Your task to perform on an android device: create a new album in the google photos Image 0: 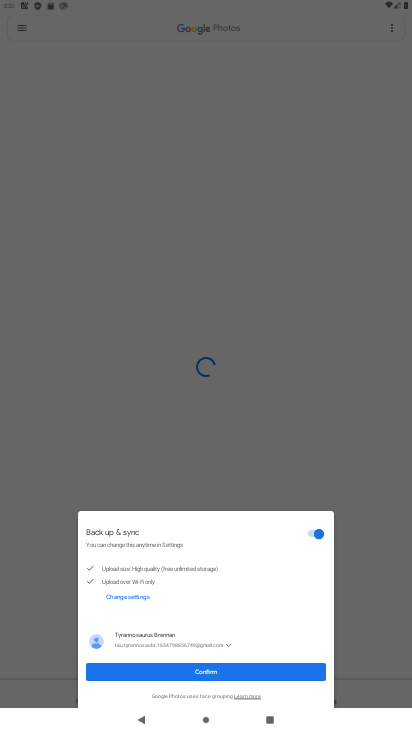
Step 0: press home button
Your task to perform on an android device: create a new album in the google photos Image 1: 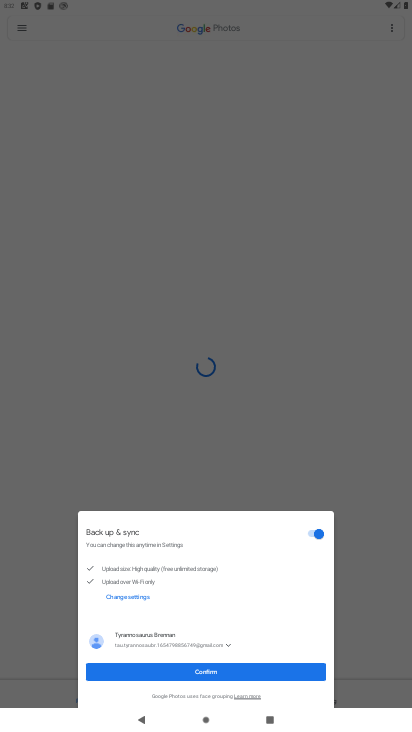
Step 1: press home button
Your task to perform on an android device: create a new album in the google photos Image 2: 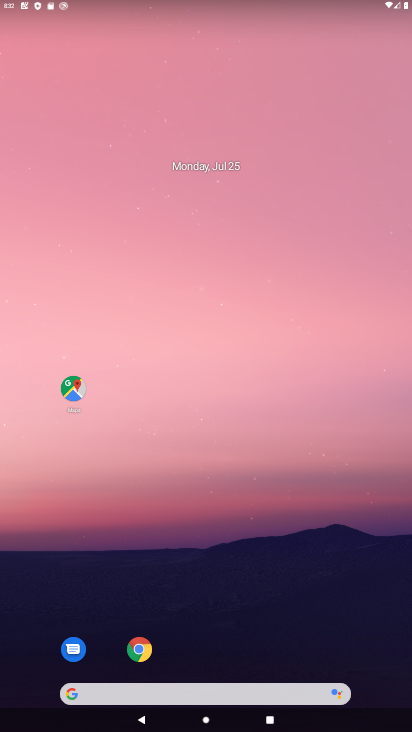
Step 2: press home button
Your task to perform on an android device: create a new album in the google photos Image 3: 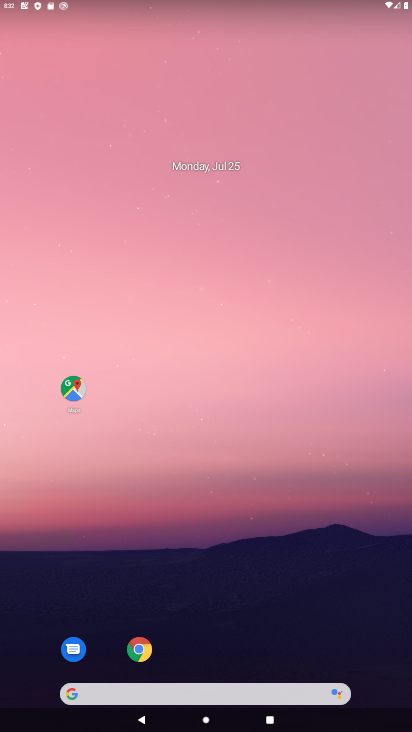
Step 3: drag from (208, 667) to (182, 124)
Your task to perform on an android device: create a new album in the google photos Image 4: 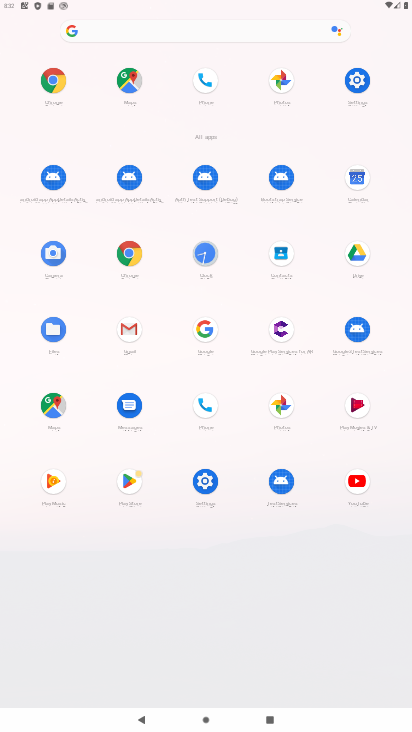
Step 4: click (265, 409)
Your task to perform on an android device: create a new album in the google photos Image 5: 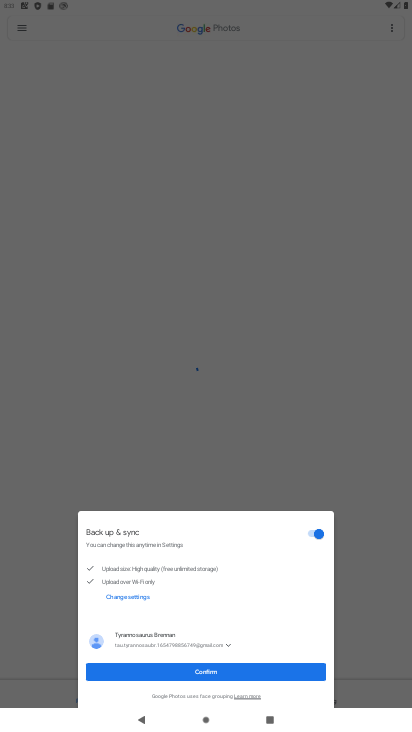
Step 5: click (297, 671)
Your task to perform on an android device: create a new album in the google photos Image 6: 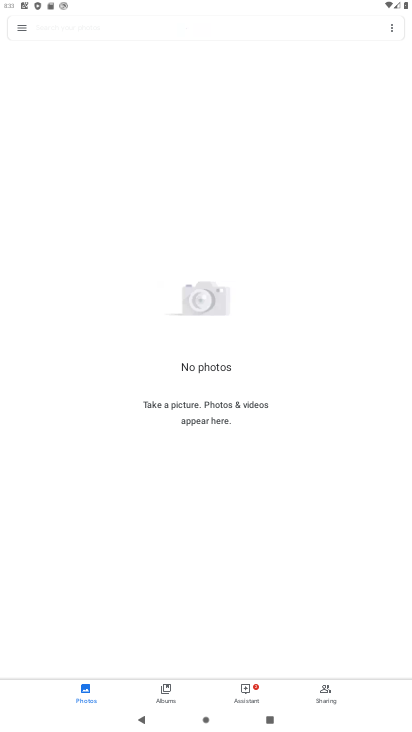
Step 6: click (168, 691)
Your task to perform on an android device: create a new album in the google photos Image 7: 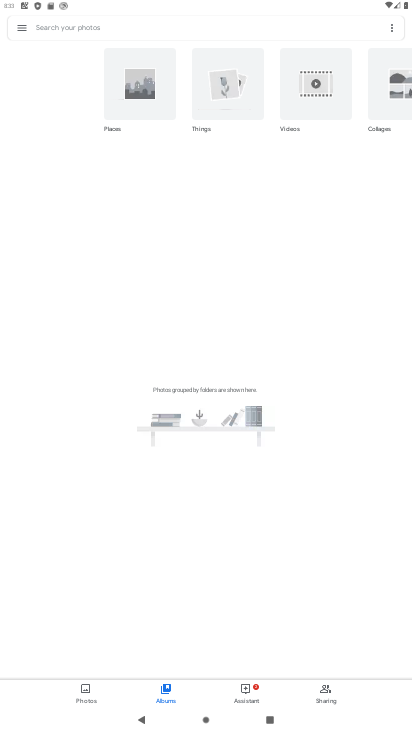
Step 7: task complete